Your task to perform on an android device: all mails in gmail Image 0: 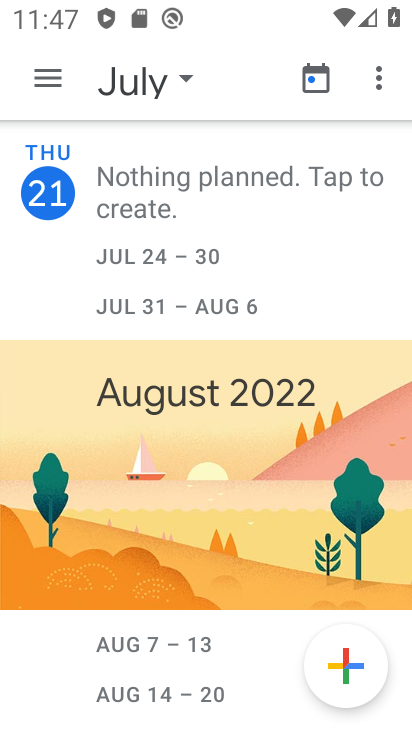
Step 0: press home button
Your task to perform on an android device: all mails in gmail Image 1: 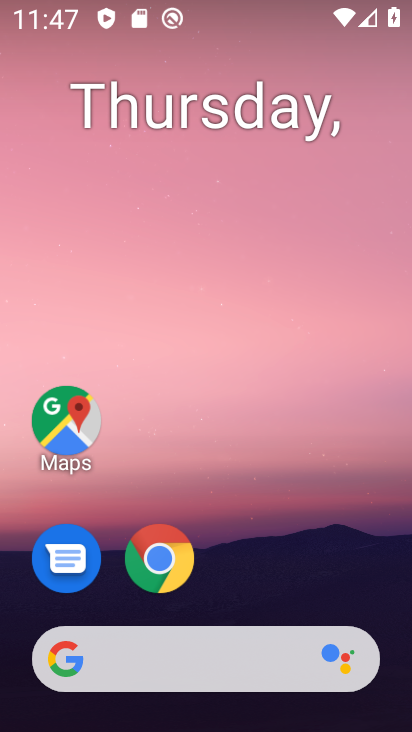
Step 1: drag from (335, 539) to (334, 124)
Your task to perform on an android device: all mails in gmail Image 2: 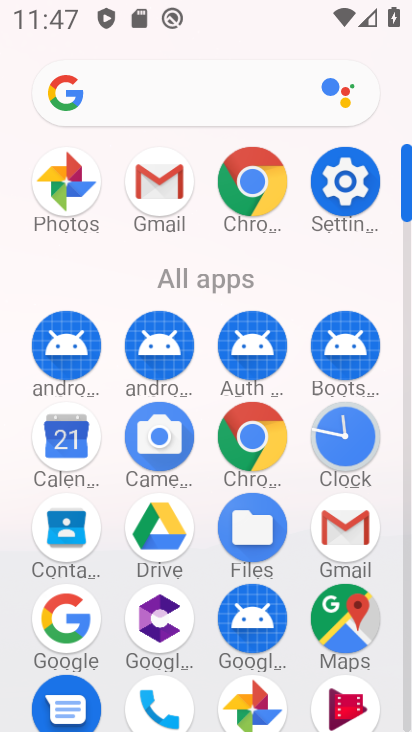
Step 2: click (165, 199)
Your task to perform on an android device: all mails in gmail Image 3: 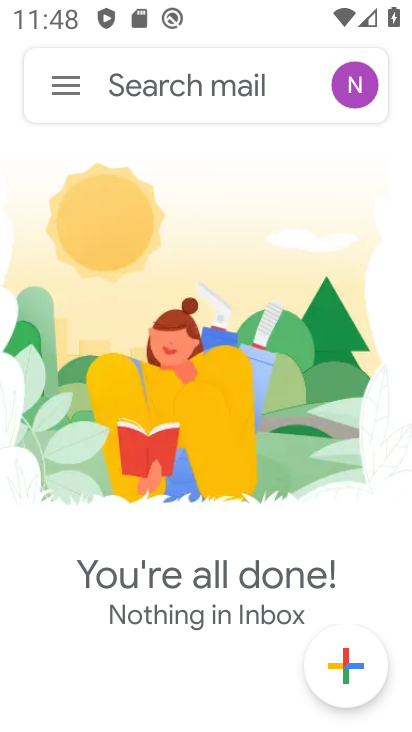
Step 3: click (70, 87)
Your task to perform on an android device: all mails in gmail Image 4: 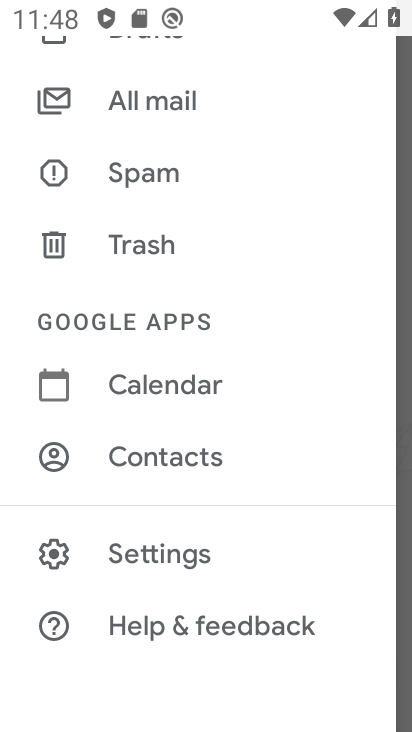
Step 4: drag from (280, 236) to (289, 308)
Your task to perform on an android device: all mails in gmail Image 5: 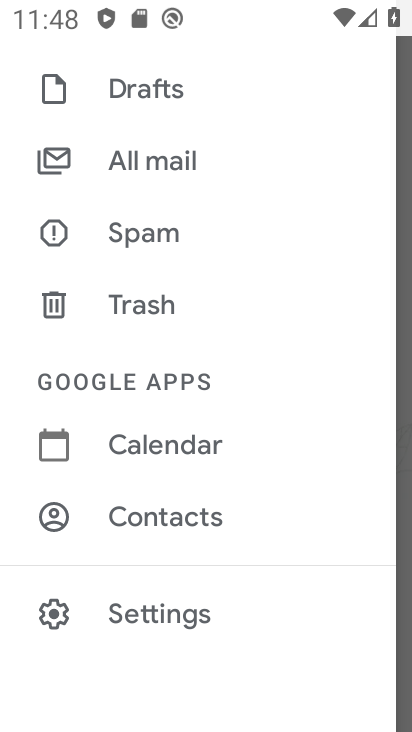
Step 5: drag from (283, 278) to (289, 329)
Your task to perform on an android device: all mails in gmail Image 6: 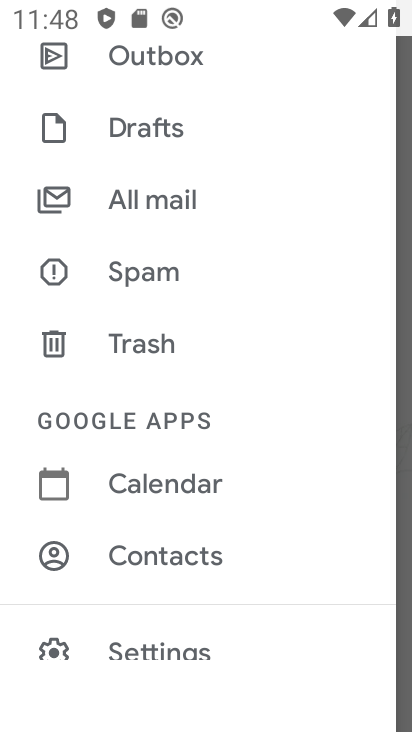
Step 6: drag from (279, 224) to (284, 314)
Your task to perform on an android device: all mails in gmail Image 7: 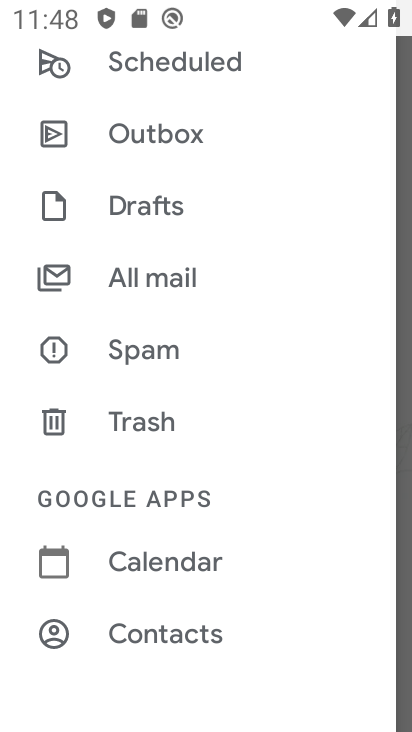
Step 7: drag from (271, 191) to (268, 313)
Your task to perform on an android device: all mails in gmail Image 8: 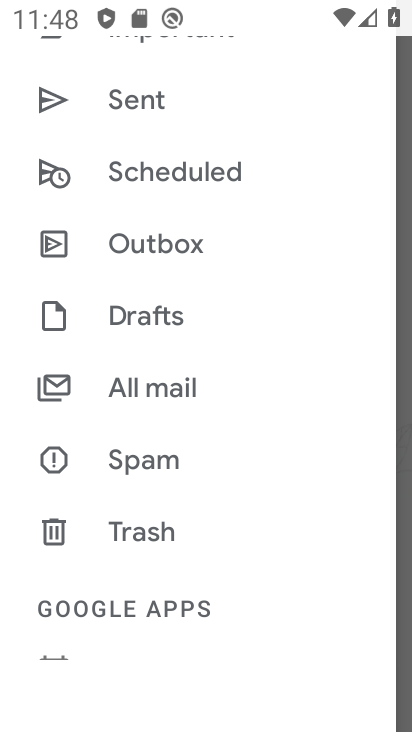
Step 8: click (236, 377)
Your task to perform on an android device: all mails in gmail Image 9: 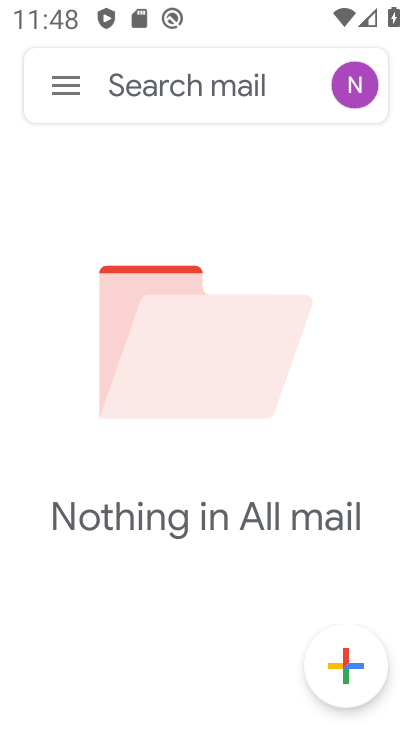
Step 9: task complete